Your task to perform on an android device: Clear the cart on newegg. Add acer nitro to the cart on newegg Image 0: 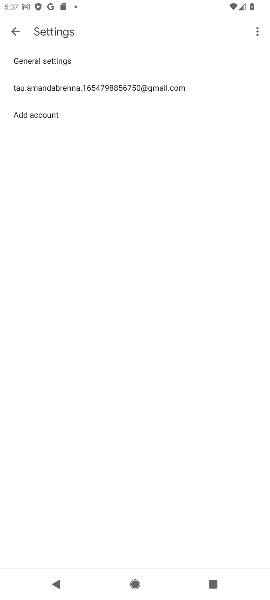
Step 0: press home button
Your task to perform on an android device: Clear the cart on newegg. Add acer nitro to the cart on newegg Image 1: 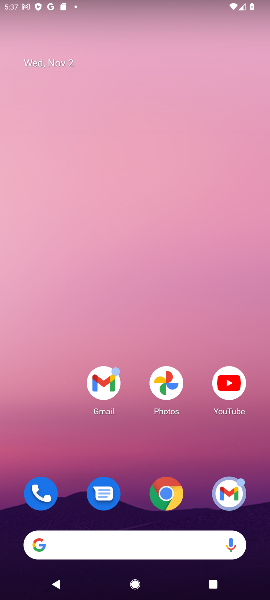
Step 1: drag from (173, 511) to (169, 137)
Your task to perform on an android device: Clear the cart on newegg. Add acer nitro to the cart on newegg Image 2: 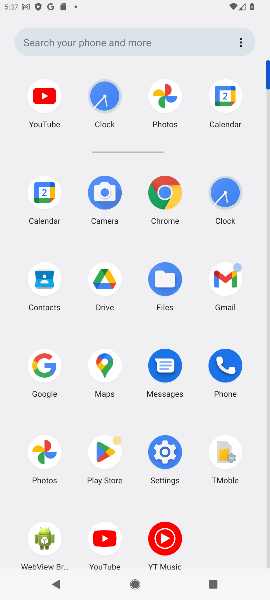
Step 2: click (41, 364)
Your task to perform on an android device: Clear the cart on newegg. Add acer nitro to the cart on newegg Image 3: 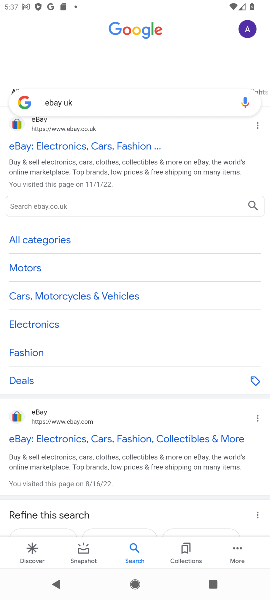
Step 3: click (75, 99)
Your task to perform on an android device: Clear the cart on newegg. Add acer nitro to the cart on newegg Image 4: 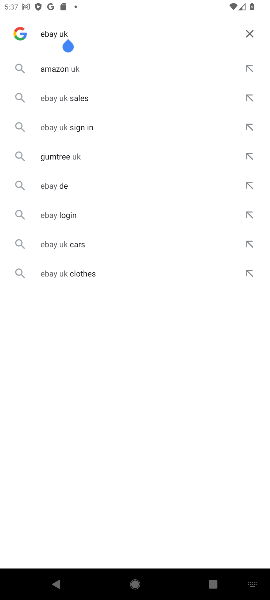
Step 4: click (253, 33)
Your task to perform on an android device: Clear the cart on newegg. Add acer nitro to the cart on newegg Image 5: 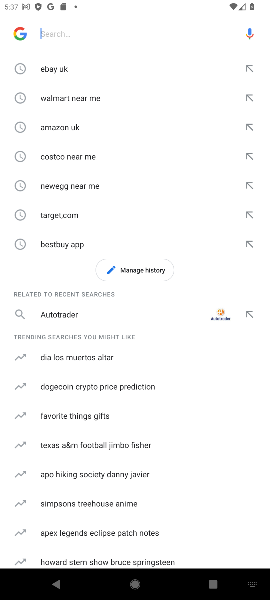
Step 5: click (91, 32)
Your task to perform on an android device: Clear the cart on newegg. Add acer nitro to the cart on newegg Image 6: 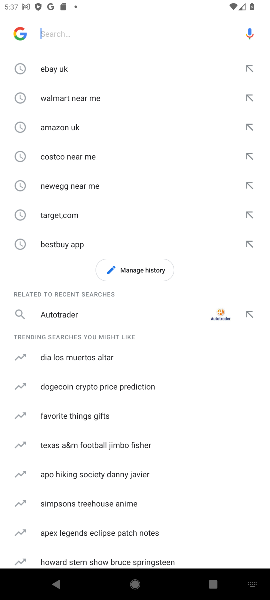
Step 6: type "newegg "
Your task to perform on an android device: Clear the cart on newegg. Add acer nitro to the cart on newegg Image 7: 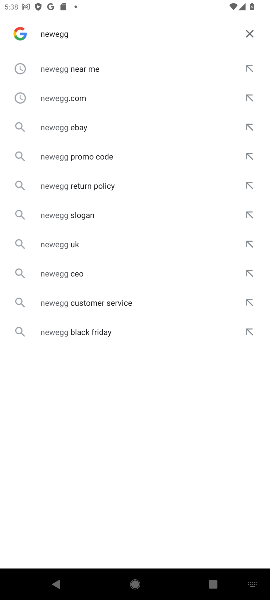
Step 7: click (51, 65)
Your task to perform on an android device: Clear the cart on newegg. Add acer nitro to the cart on newegg Image 8: 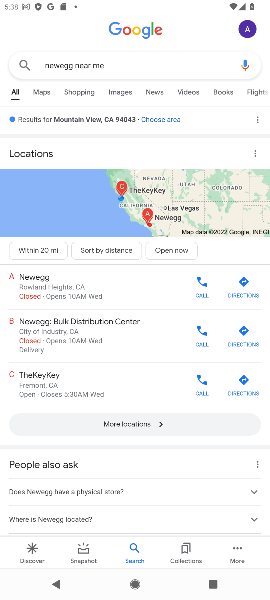
Step 8: drag from (145, 482) to (138, 207)
Your task to perform on an android device: Clear the cart on newegg. Add acer nitro to the cart on newegg Image 9: 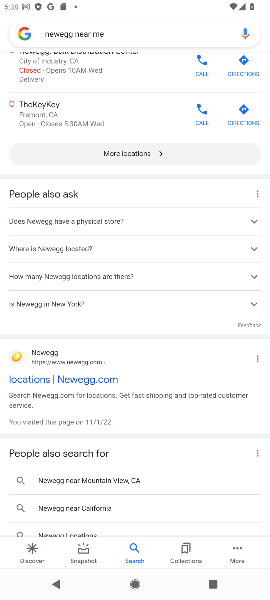
Step 9: click (13, 354)
Your task to perform on an android device: Clear the cart on newegg. Add acer nitro to the cart on newegg Image 10: 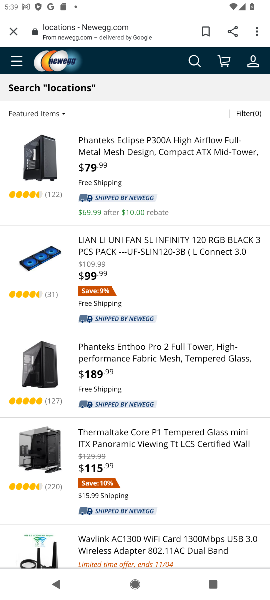
Step 10: click (197, 61)
Your task to perform on an android device: Clear the cart on newegg. Add acer nitro to the cart on newegg Image 11: 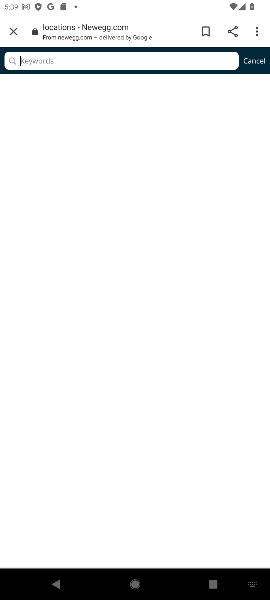
Step 11: click (123, 56)
Your task to perform on an android device: Clear the cart on newegg. Add acer nitro to the cart on newegg Image 12: 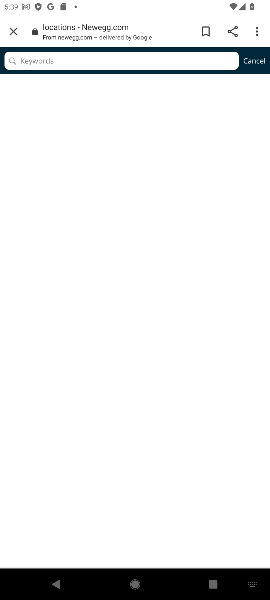
Step 12: type "Add acer  "
Your task to perform on an android device: Clear the cart on newegg. Add acer nitro to the cart on newegg Image 13: 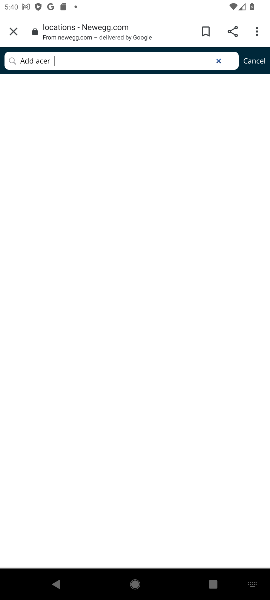
Step 13: task complete